Your task to perform on an android device: check out phone information Image 0: 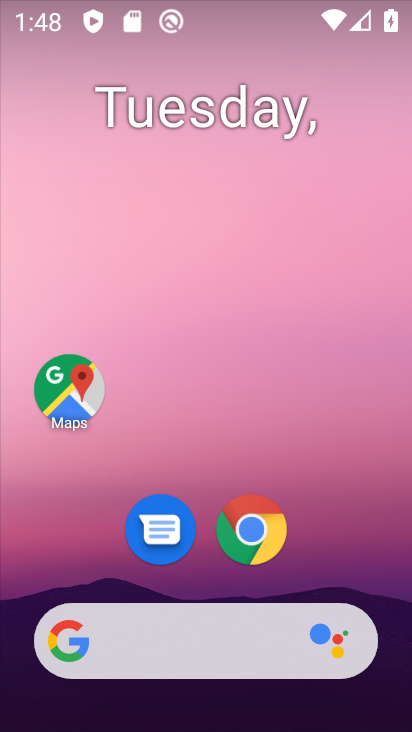
Step 0: drag from (253, 506) to (340, 19)
Your task to perform on an android device: check out phone information Image 1: 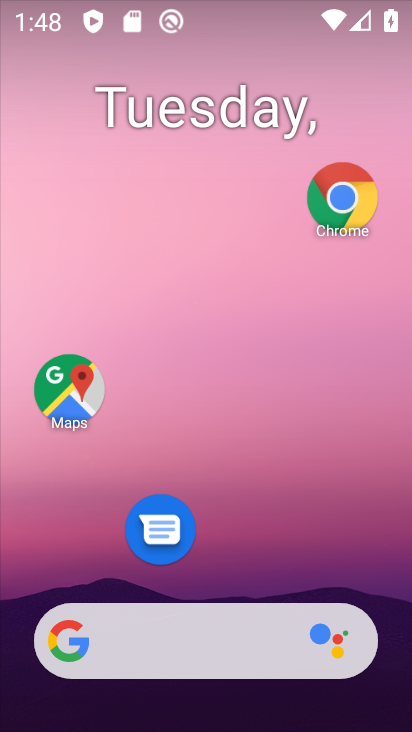
Step 1: drag from (260, 256) to (259, 48)
Your task to perform on an android device: check out phone information Image 2: 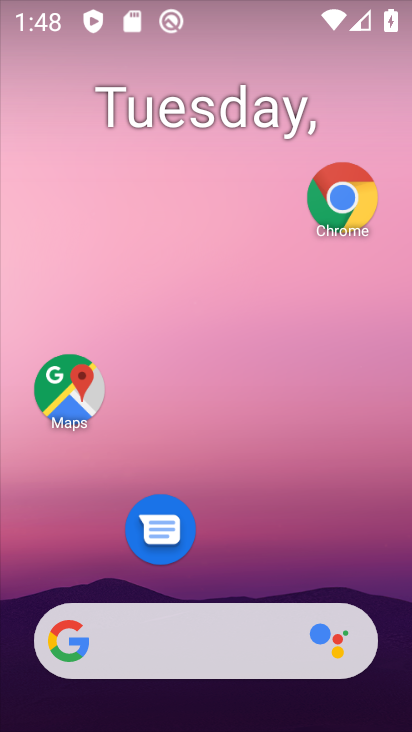
Step 2: drag from (239, 410) to (293, 20)
Your task to perform on an android device: check out phone information Image 3: 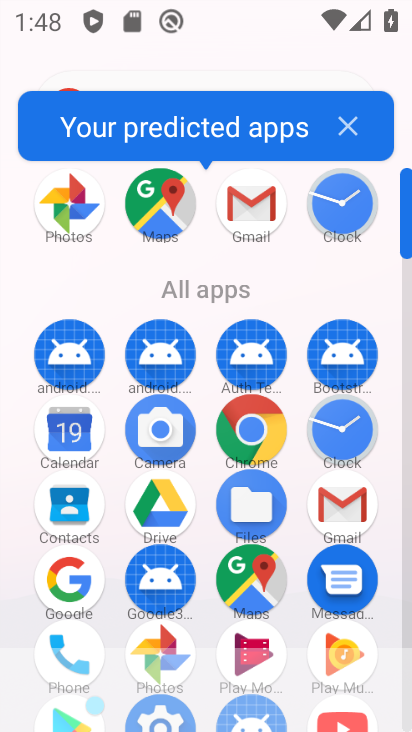
Step 3: drag from (185, 596) to (269, 71)
Your task to perform on an android device: check out phone information Image 4: 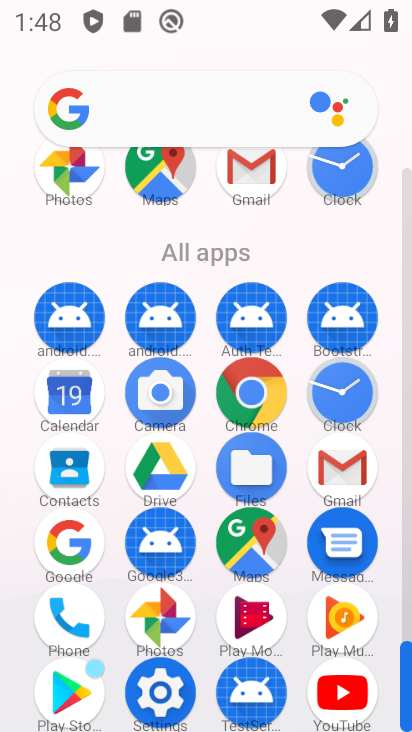
Step 4: click (162, 673)
Your task to perform on an android device: check out phone information Image 5: 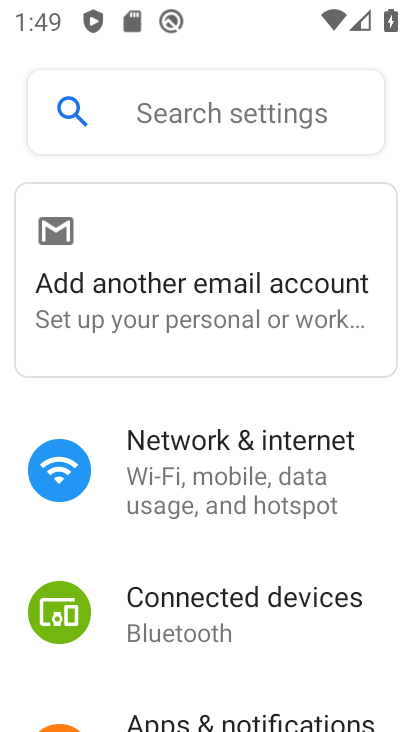
Step 5: drag from (209, 657) to (277, 146)
Your task to perform on an android device: check out phone information Image 6: 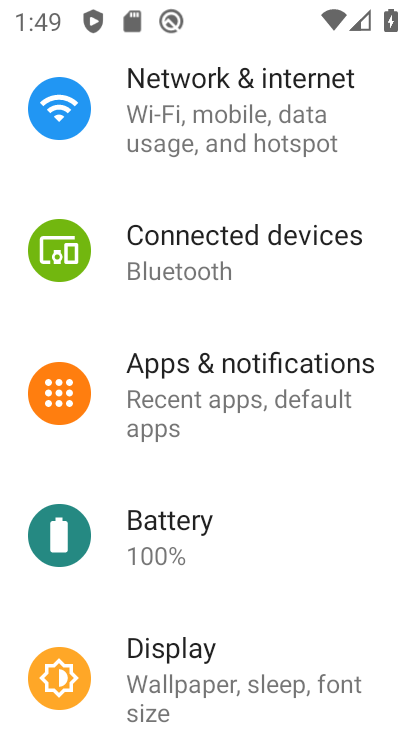
Step 6: drag from (143, 629) to (292, 88)
Your task to perform on an android device: check out phone information Image 7: 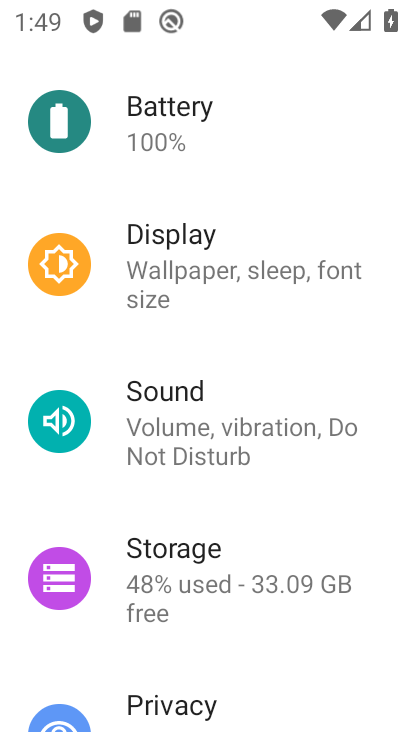
Step 7: drag from (211, 512) to (283, 45)
Your task to perform on an android device: check out phone information Image 8: 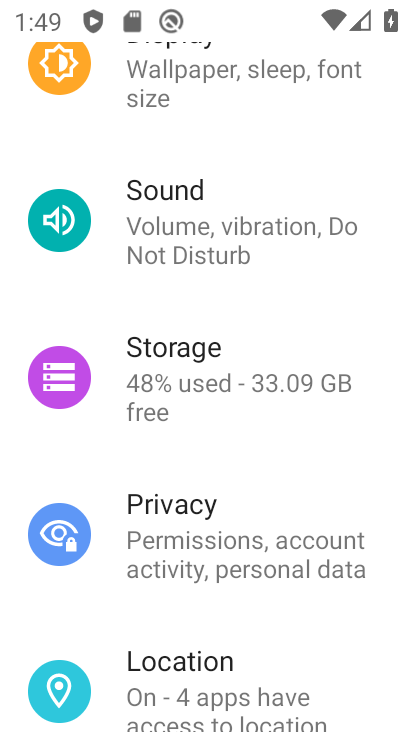
Step 8: drag from (235, 511) to (324, 31)
Your task to perform on an android device: check out phone information Image 9: 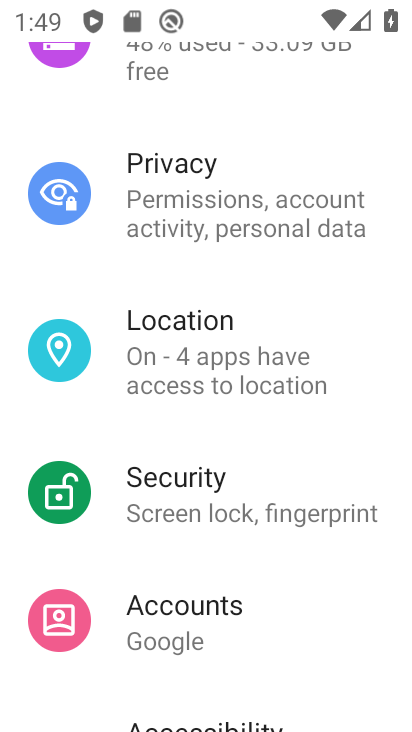
Step 9: drag from (176, 662) to (319, 80)
Your task to perform on an android device: check out phone information Image 10: 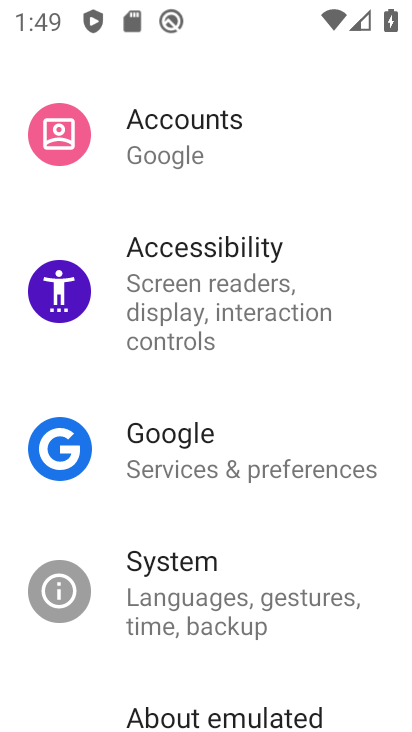
Step 10: drag from (158, 607) to (328, 0)
Your task to perform on an android device: check out phone information Image 11: 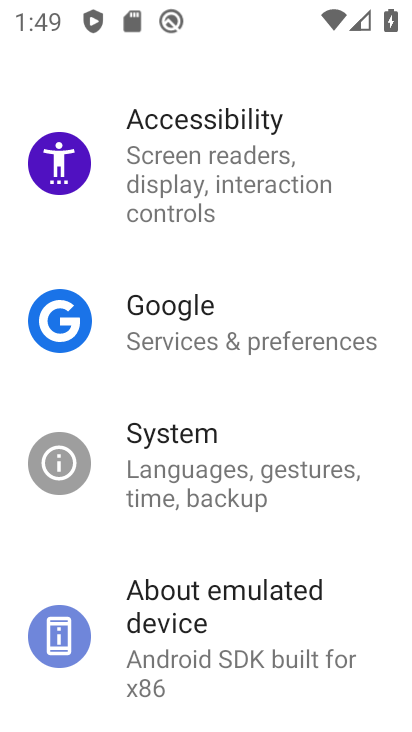
Step 11: drag from (207, 609) to (307, 53)
Your task to perform on an android device: check out phone information Image 12: 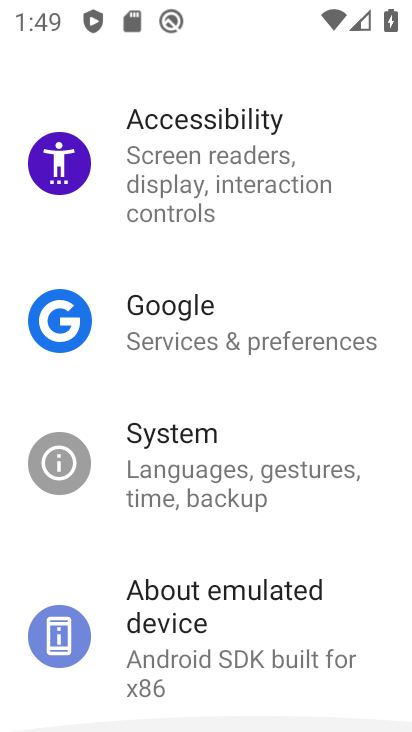
Step 12: click (233, 641)
Your task to perform on an android device: check out phone information Image 13: 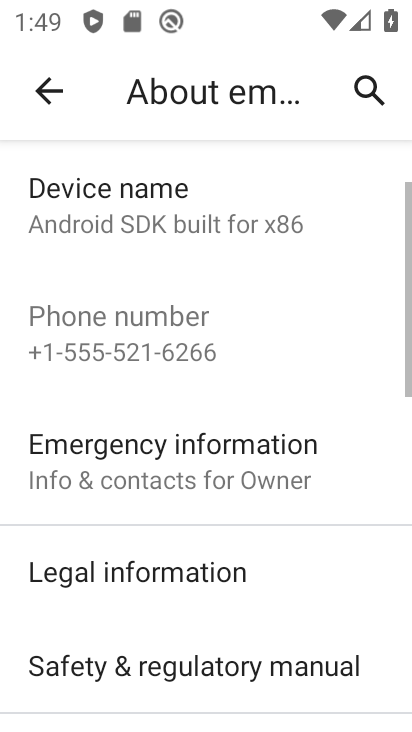
Step 13: task complete